Your task to perform on an android device: Open calendar and show me the fourth week of next month Image 0: 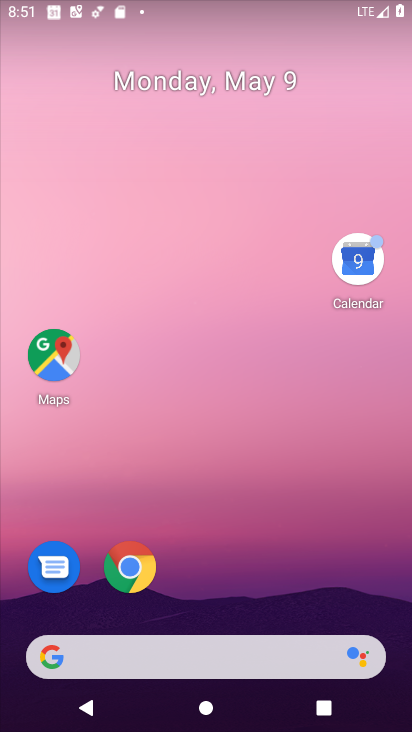
Step 0: drag from (205, 616) to (165, 215)
Your task to perform on an android device: Open calendar and show me the fourth week of next month Image 1: 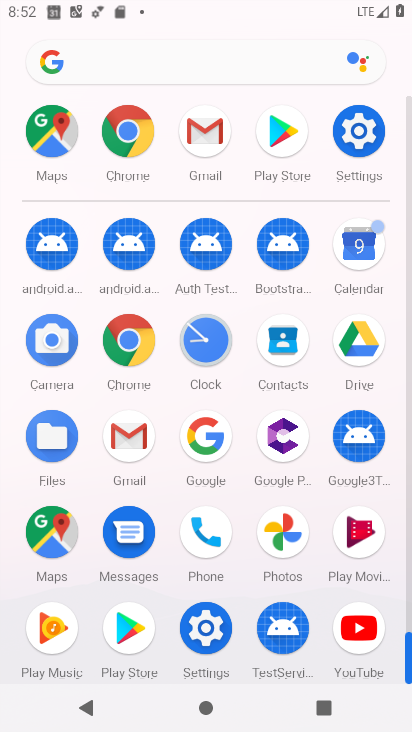
Step 1: click (356, 239)
Your task to perform on an android device: Open calendar and show me the fourth week of next month Image 2: 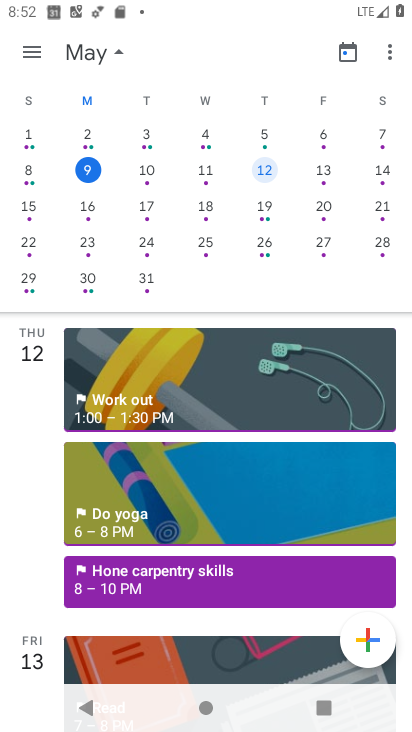
Step 2: click (307, 124)
Your task to perform on an android device: Open calendar and show me the fourth week of next month Image 3: 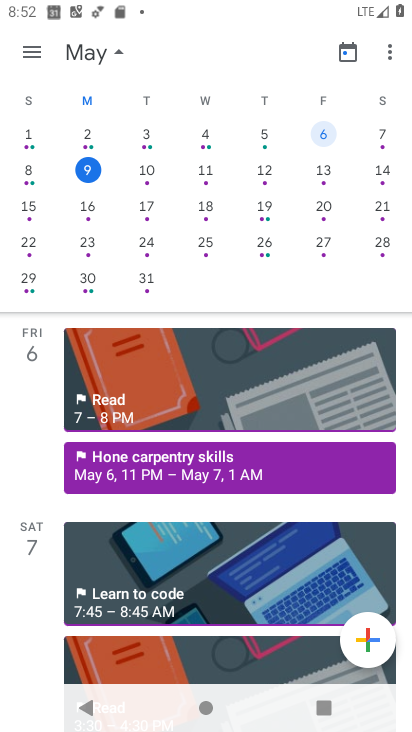
Step 3: click (268, 375)
Your task to perform on an android device: Open calendar and show me the fourth week of next month Image 4: 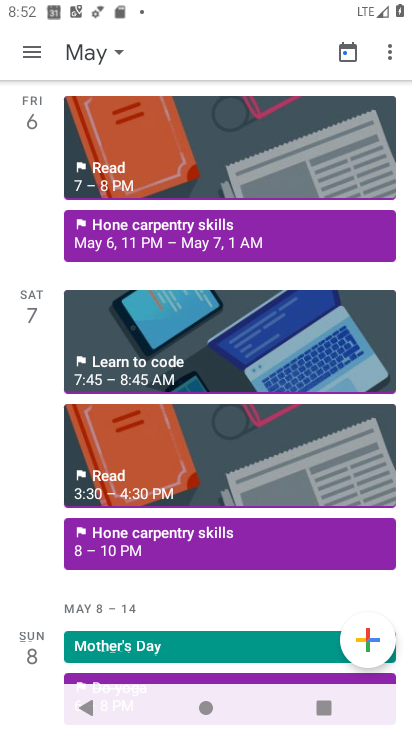
Step 4: drag from (223, 580) to (246, 118)
Your task to perform on an android device: Open calendar and show me the fourth week of next month Image 5: 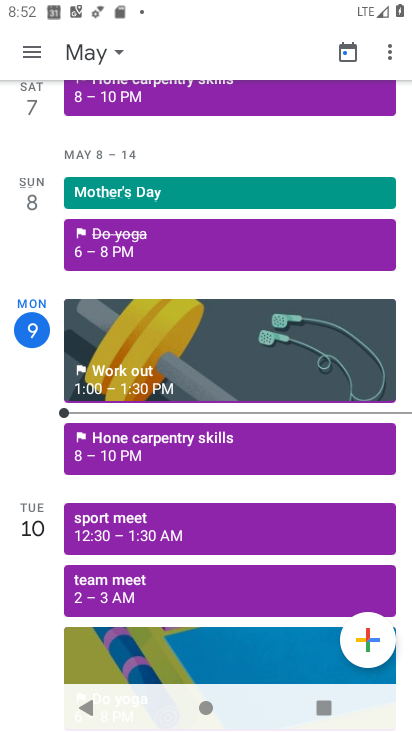
Step 5: drag from (217, 586) to (280, 235)
Your task to perform on an android device: Open calendar and show me the fourth week of next month Image 6: 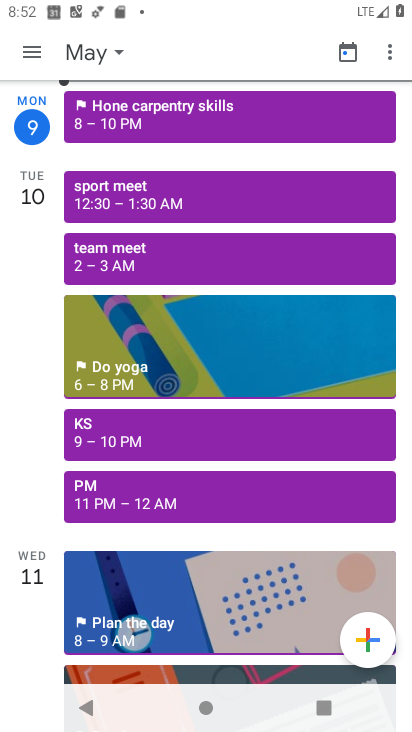
Step 6: click (114, 49)
Your task to perform on an android device: Open calendar and show me the fourth week of next month Image 7: 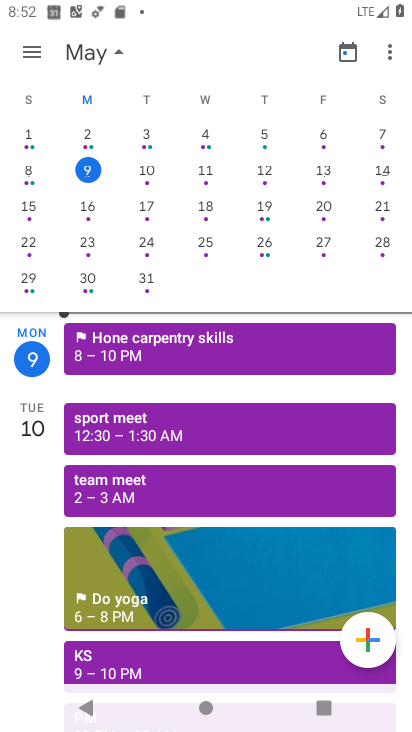
Step 7: drag from (349, 214) to (0, 198)
Your task to perform on an android device: Open calendar and show me the fourth week of next month Image 8: 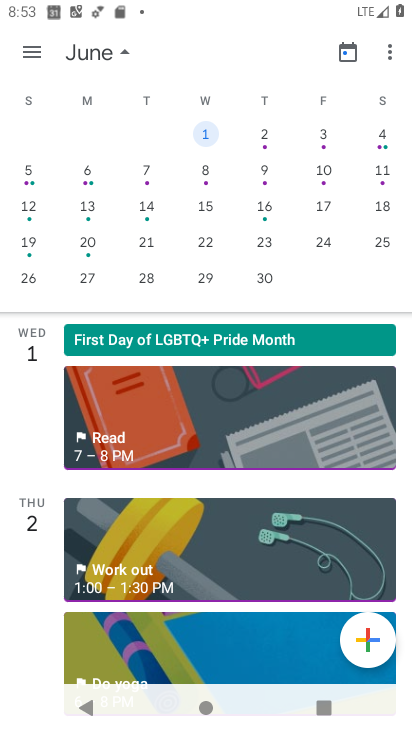
Step 8: click (201, 239)
Your task to perform on an android device: Open calendar and show me the fourth week of next month Image 9: 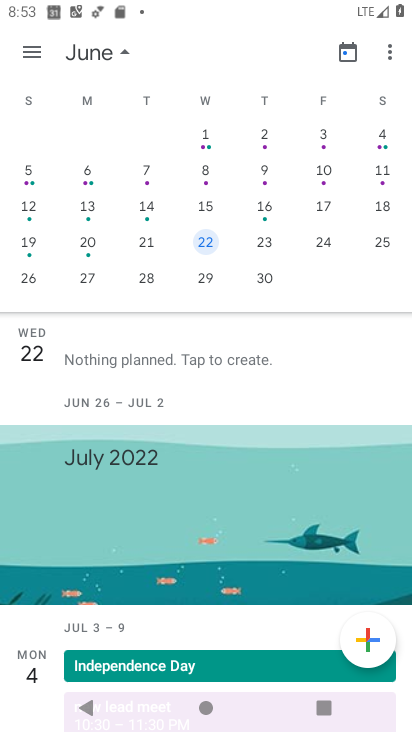
Step 9: task complete